Your task to perform on an android device: Search for sushi restaurants on Maps Image 0: 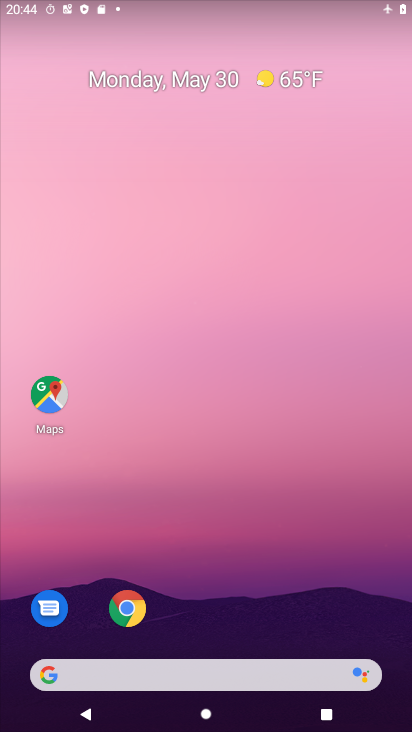
Step 0: click (62, 397)
Your task to perform on an android device: Search for sushi restaurants on Maps Image 1: 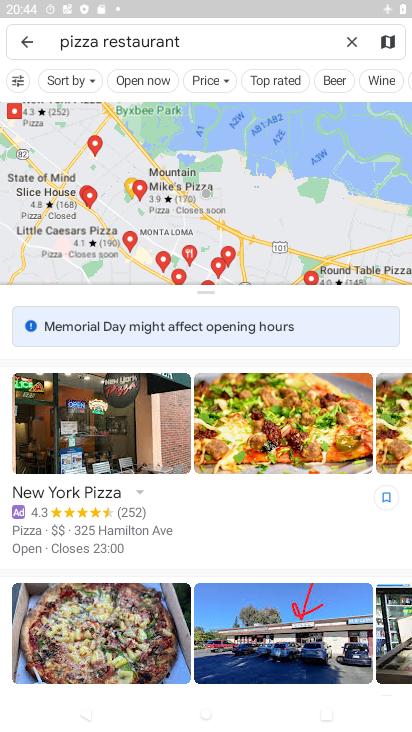
Step 1: click (351, 38)
Your task to perform on an android device: Search for sushi restaurants on Maps Image 2: 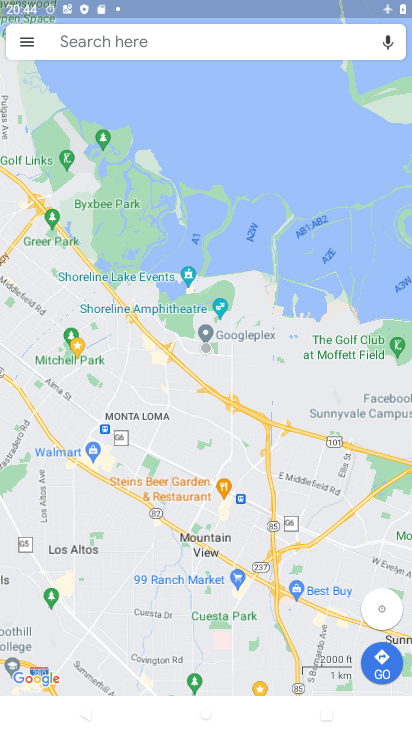
Step 2: click (205, 38)
Your task to perform on an android device: Search for sushi restaurants on Maps Image 3: 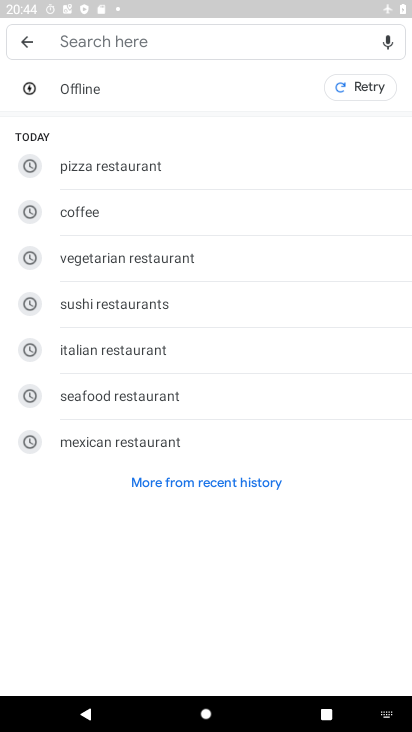
Step 3: click (178, 285)
Your task to perform on an android device: Search for sushi restaurants on Maps Image 4: 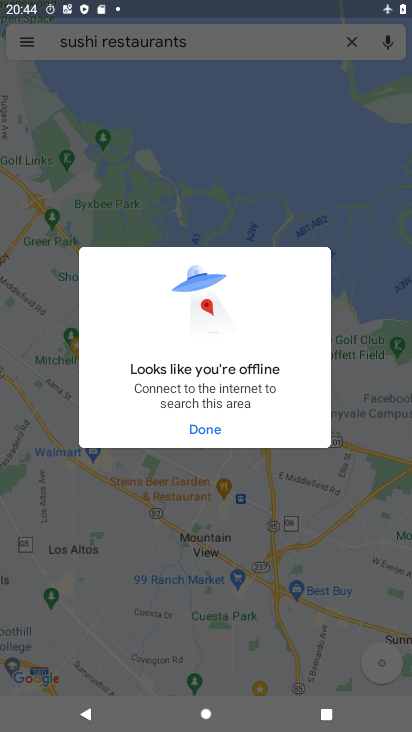
Step 4: task complete